Your task to perform on an android device: set an alarm Image 0: 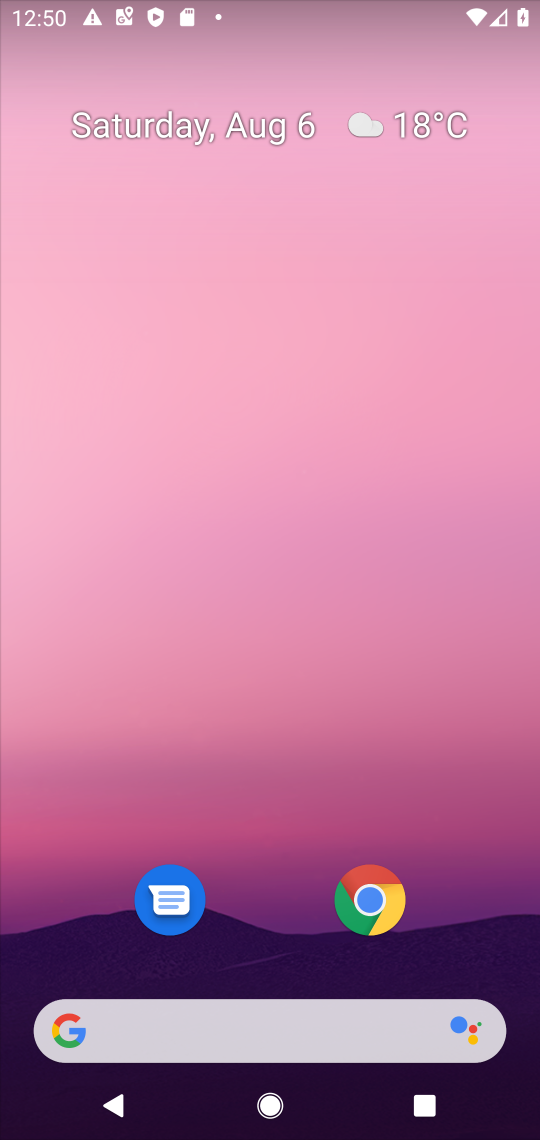
Step 0: drag from (453, 933) to (390, 3)
Your task to perform on an android device: set an alarm Image 1: 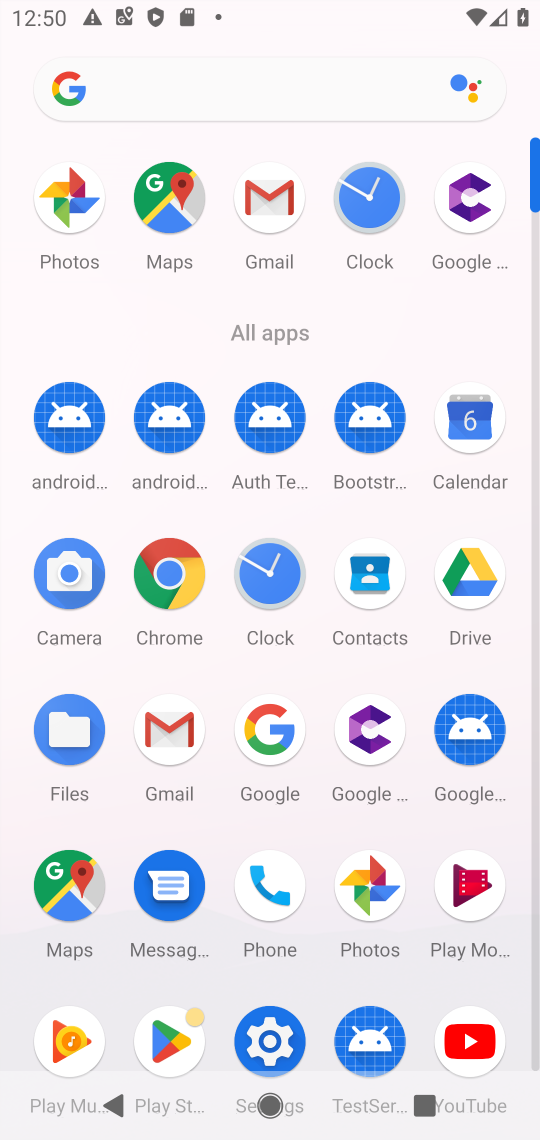
Step 1: click (363, 210)
Your task to perform on an android device: set an alarm Image 2: 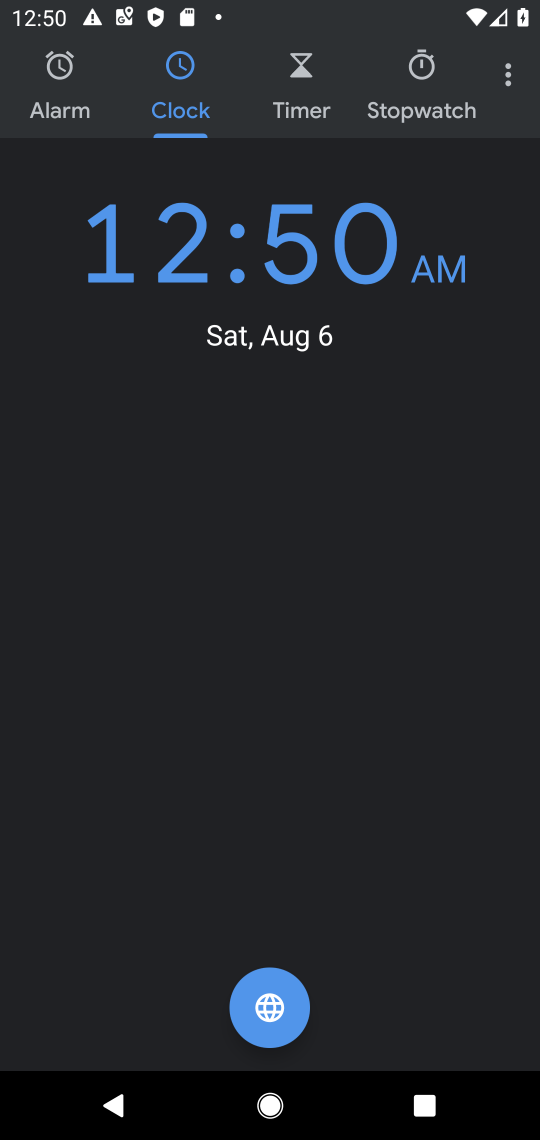
Step 2: click (78, 93)
Your task to perform on an android device: set an alarm Image 3: 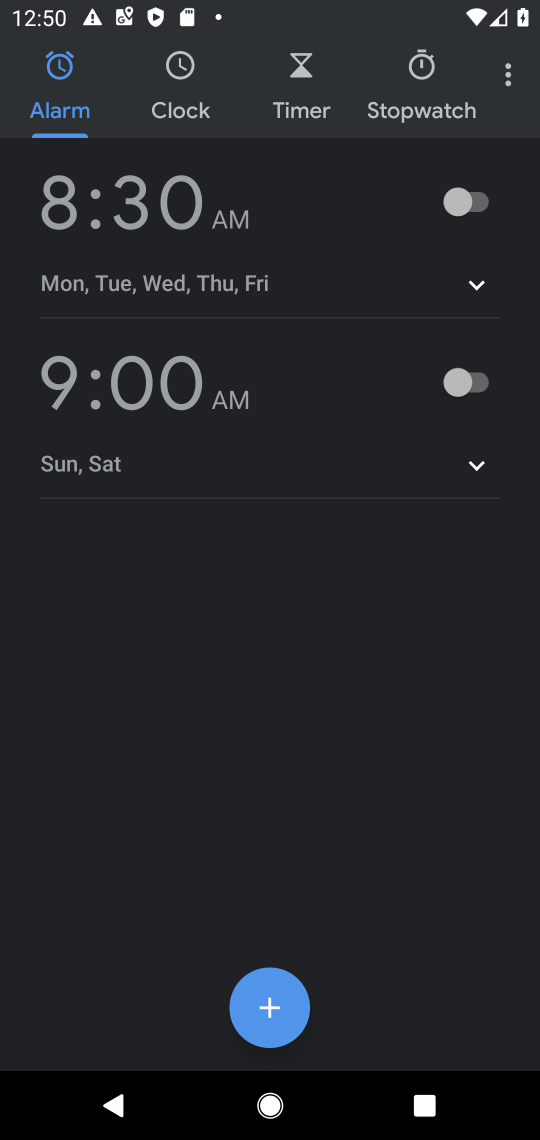
Step 3: click (465, 386)
Your task to perform on an android device: set an alarm Image 4: 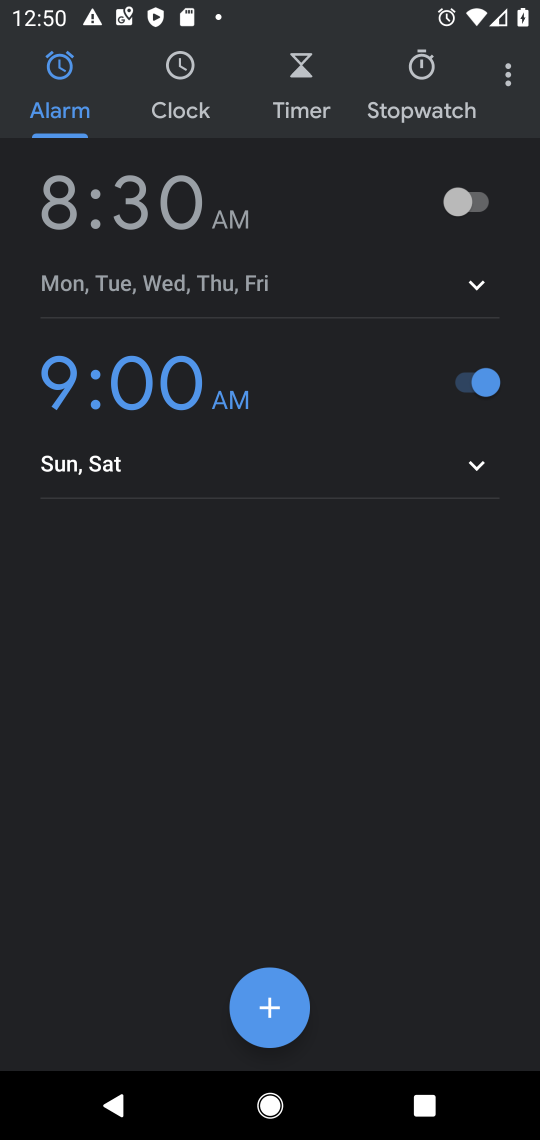
Step 4: task complete